Your task to perform on an android device: visit the assistant section in the google photos Image 0: 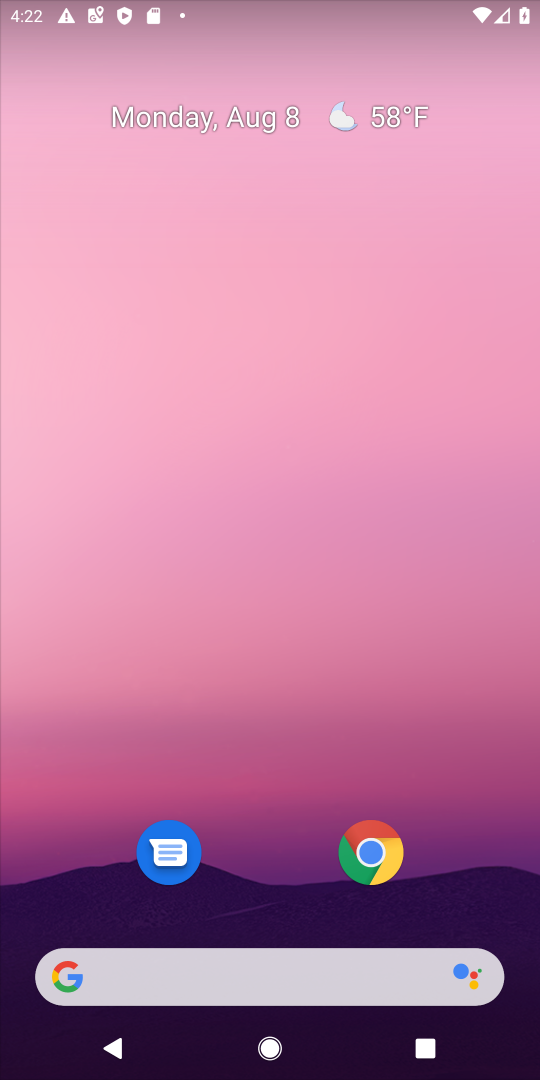
Step 0: drag from (245, 830) to (293, 171)
Your task to perform on an android device: visit the assistant section in the google photos Image 1: 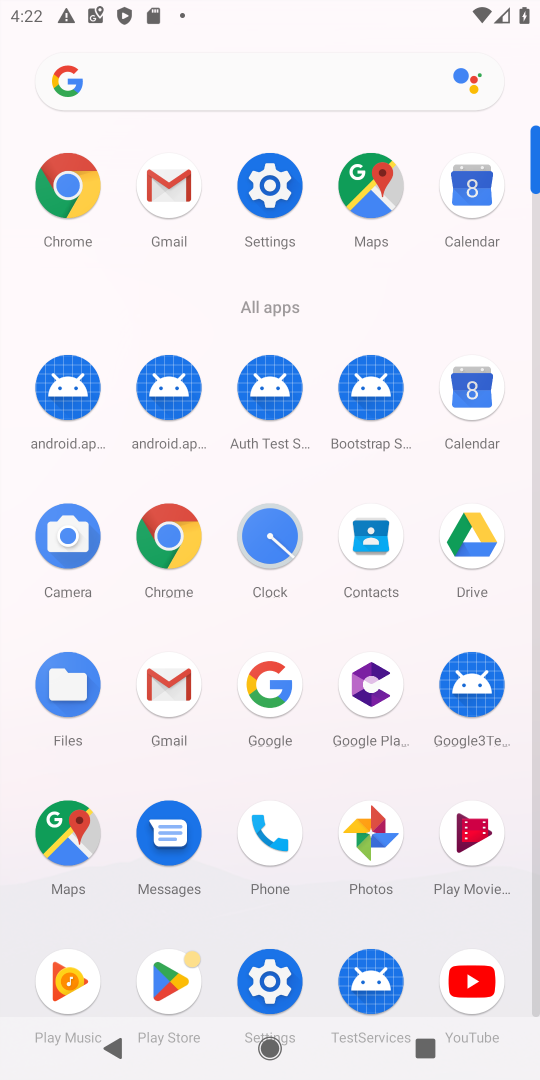
Step 1: click (375, 839)
Your task to perform on an android device: visit the assistant section in the google photos Image 2: 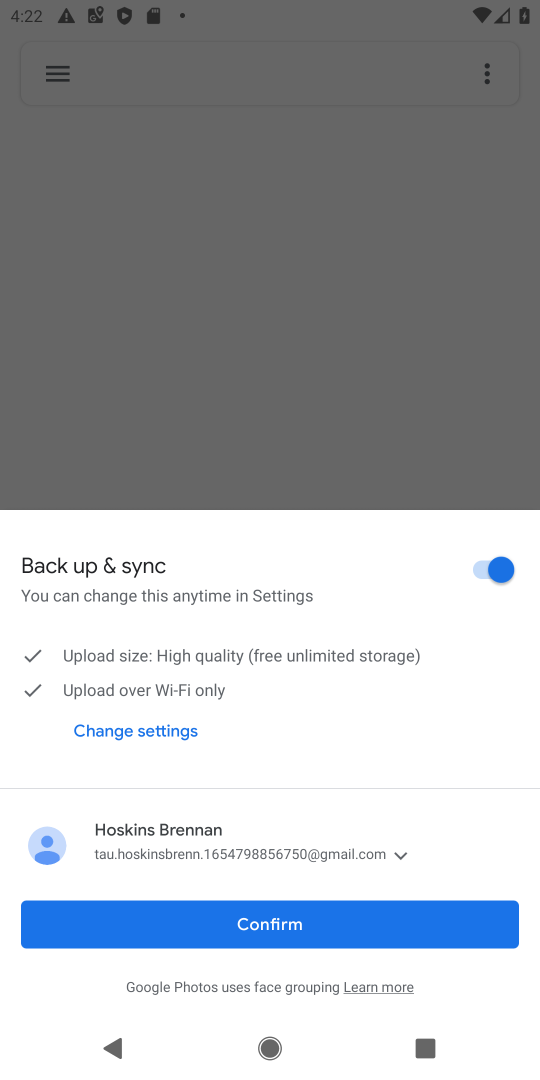
Step 2: click (275, 931)
Your task to perform on an android device: visit the assistant section in the google photos Image 3: 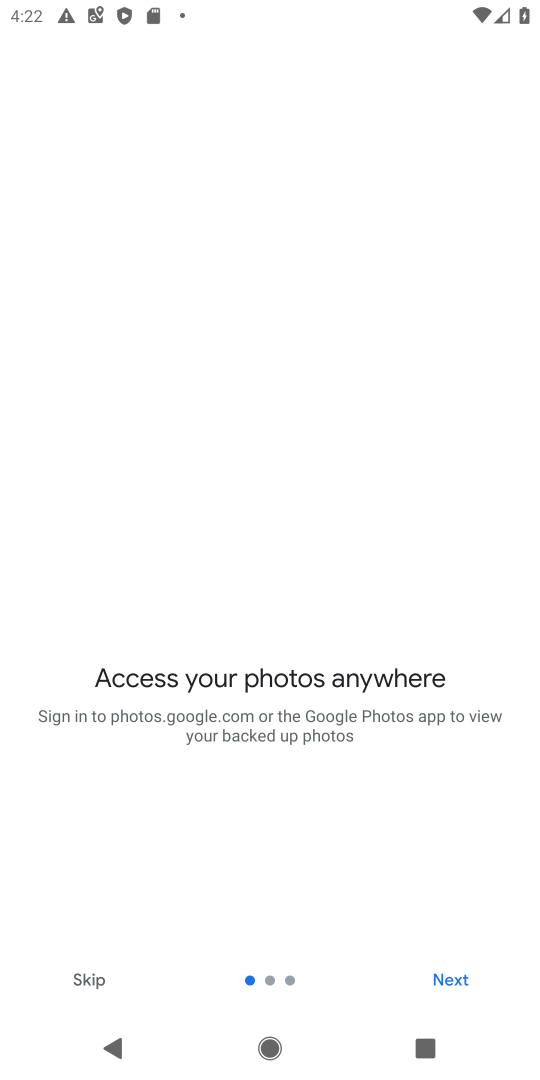
Step 3: click (462, 976)
Your task to perform on an android device: visit the assistant section in the google photos Image 4: 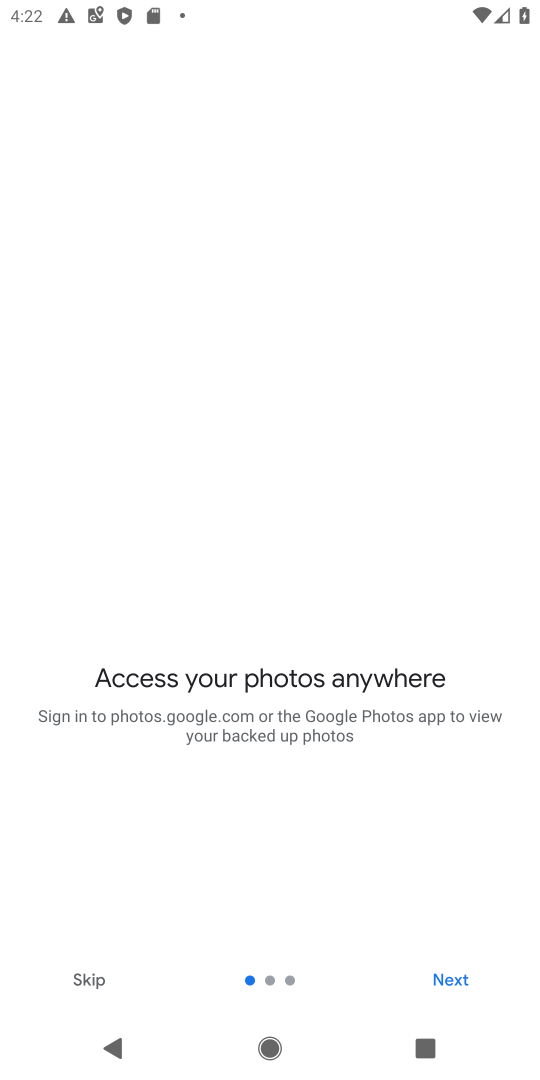
Step 4: click (462, 976)
Your task to perform on an android device: visit the assistant section in the google photos Image 5: 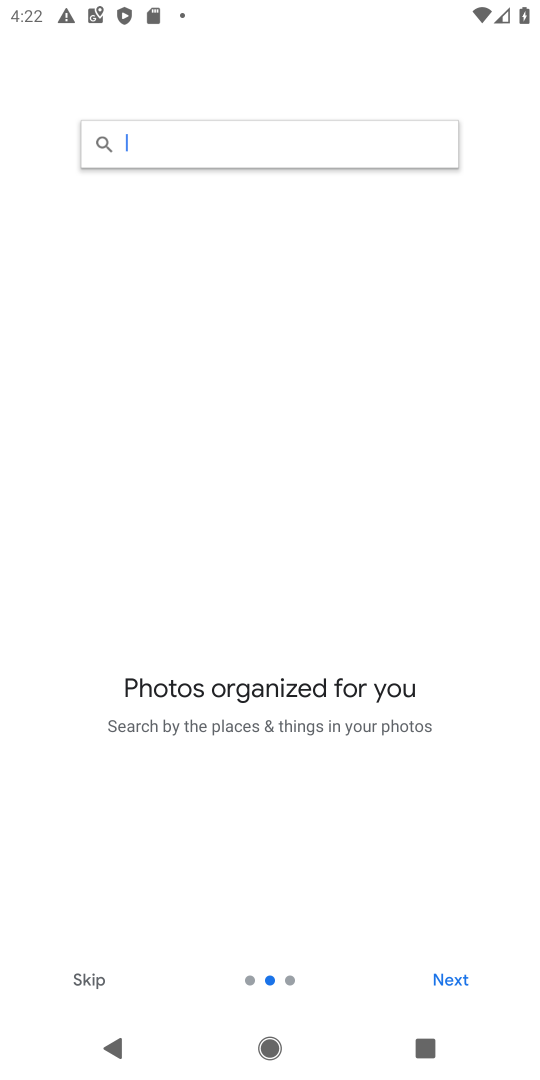
Step 5: click (462, 976)
Your task to perform on an android device: visit the assistant section in the google photos Image 6: 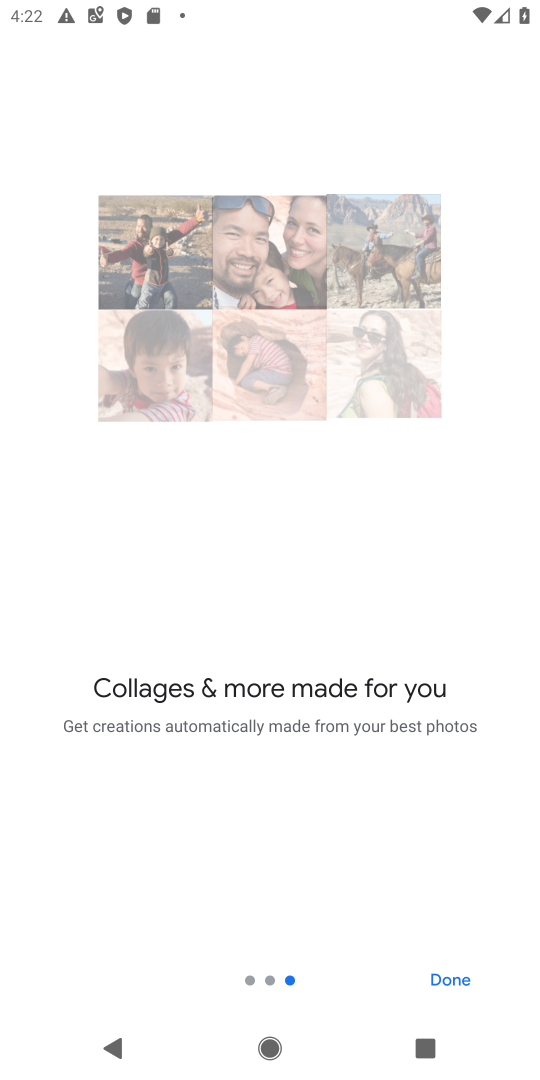
Step 6: click (462, 976)
Your task to perform on an android device: visit the assistant section in the google photos Image 7: 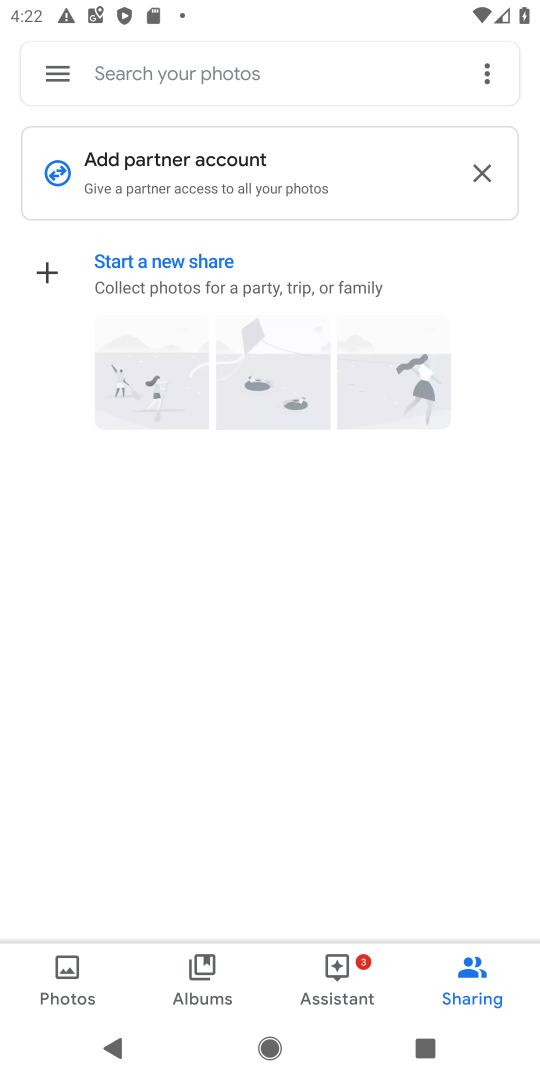
Step 7: click (70, 967)
Your task to perform on an android device: visit the assistant section in the google photos Image 8: 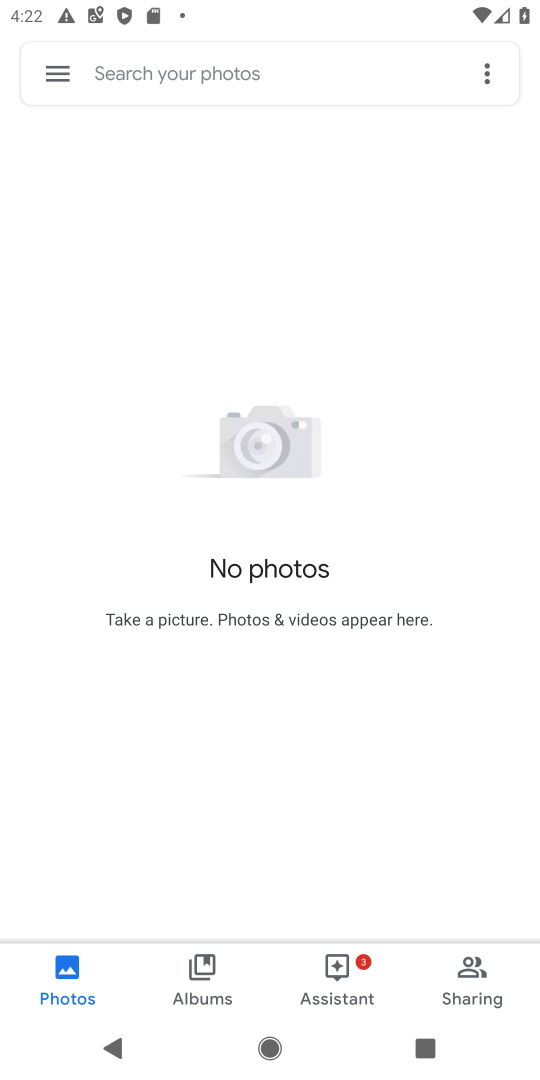
Step 8: click (325, 959)
Your task to perform on an android device: visit the assistant section in the google photos Image 9: 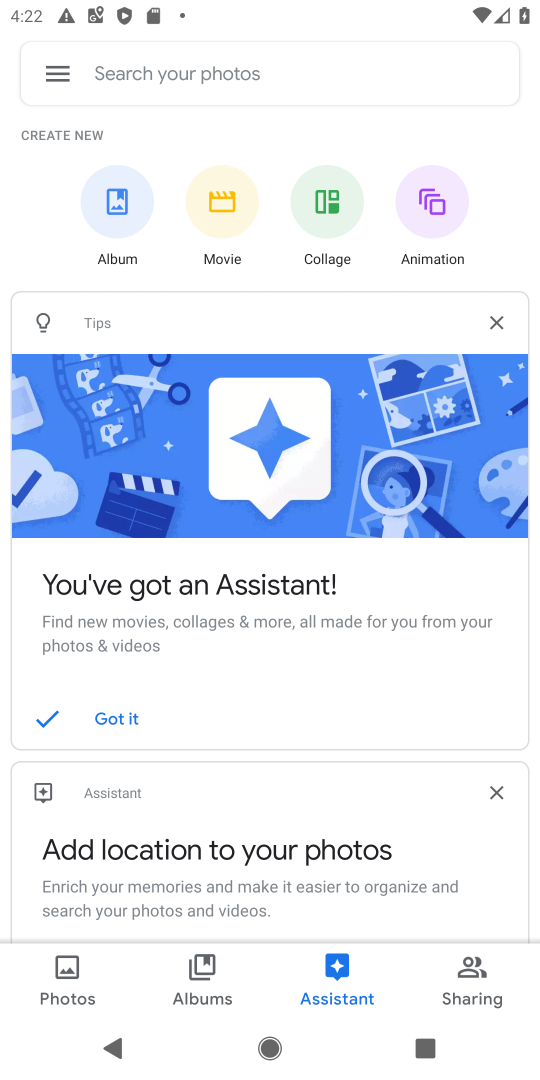
Step 9: task complete